Your task to perform on an android device: delete the emails in spam in the gmail app Image 0: 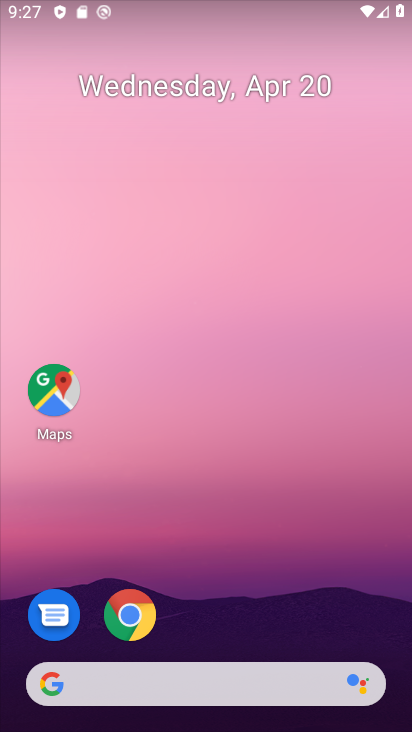
Step 0: drag from (245, 597) to (301, 106)
Your task to perform on an android device: delete the emails in spam in the gmail app Image 1: 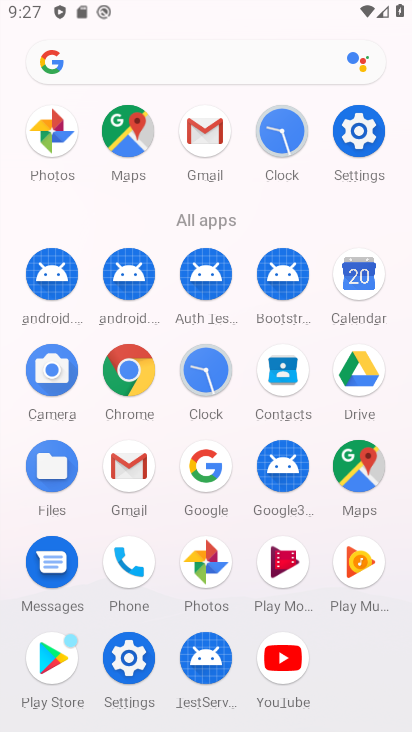
Step 1: click (193, 139)
Your task to perform on an android device: delete the emails in spam in the gmail app Image 2: 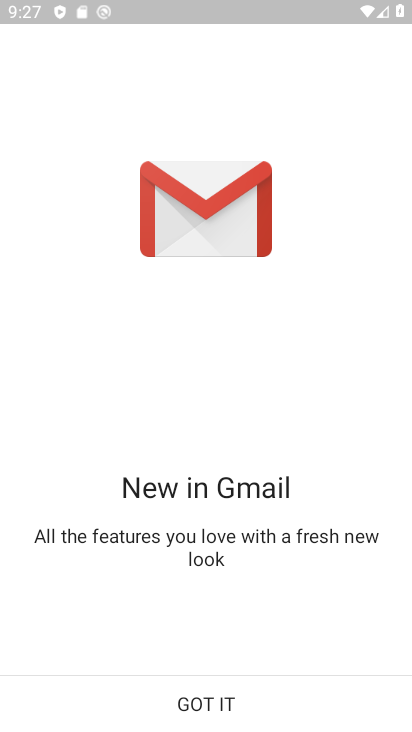
Step 2: click (208, 699)
Your task to perform on an android device: delete the emails in spam in the gmail app Image 3: 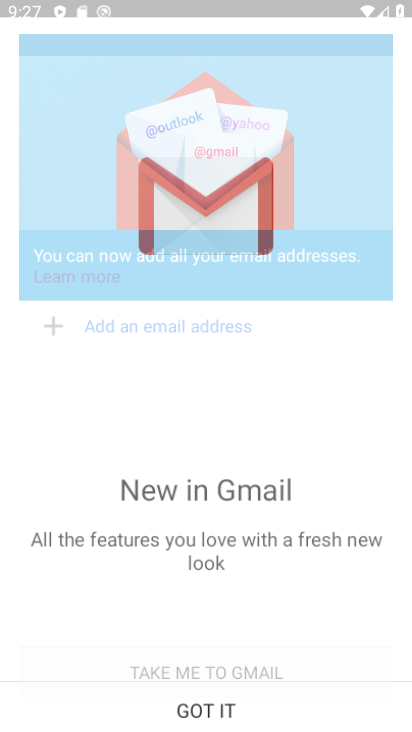
Step 3: click (208, 699)
Your task to perform on an android device: delete the emails in spam in the gmail app Image 4: 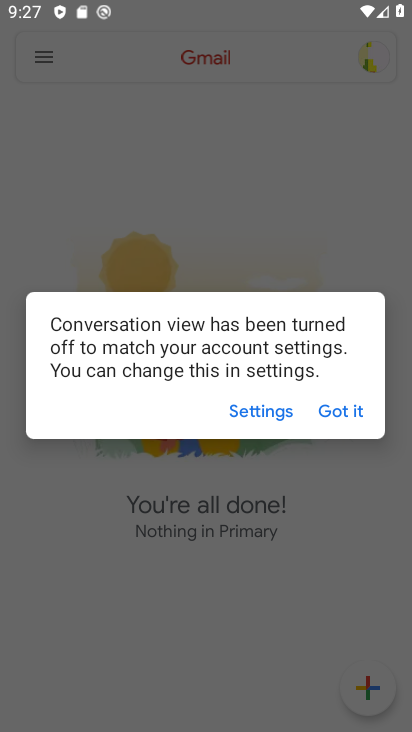
Step 4: click (358, 413)
Your task to perform on an android device: delete the emails in spam in the gmail app Image 5: 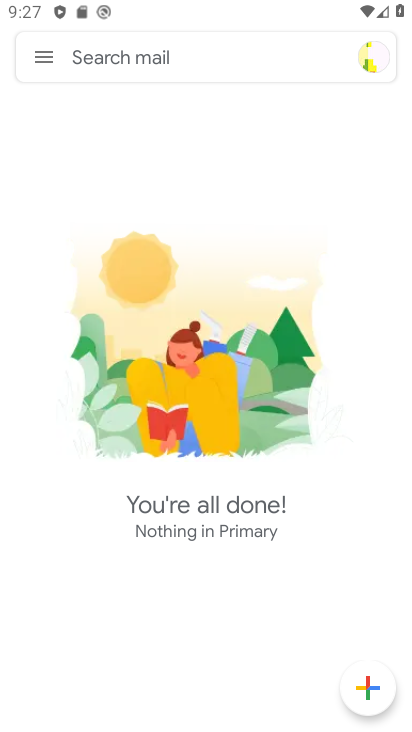
Step 5: click (40, 55)
Your task to perform on an android device: delete the emails in spam in the gmail app Image 6: 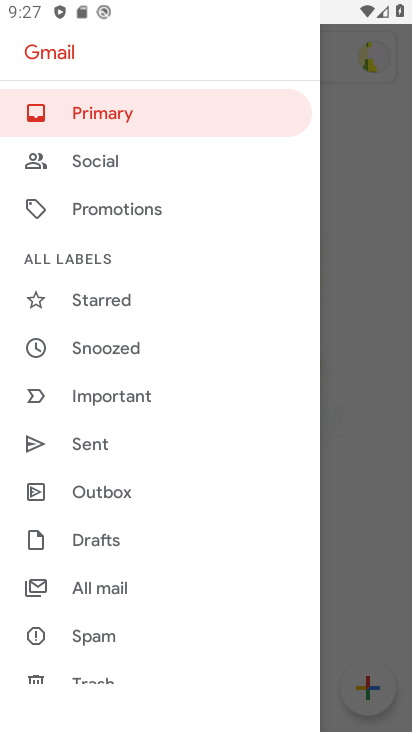
Step 6: task complete